Your task to perform on an android device: Search for Mexican restaurants on Maps Image 0: 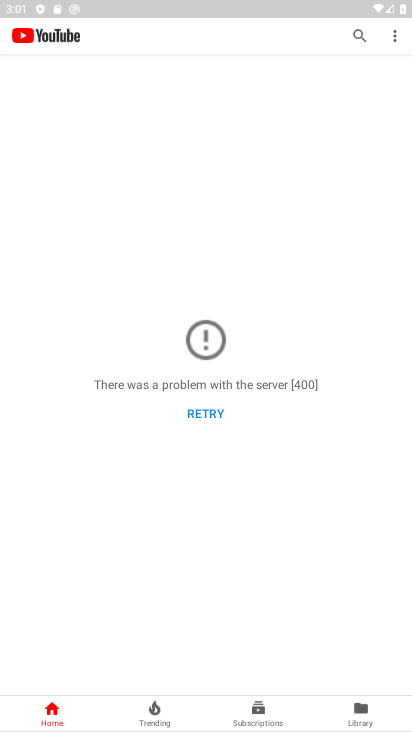
Step 0: press home button
Your task to perform on an android device: Search for Mexican restaurants on Maps Image 1: 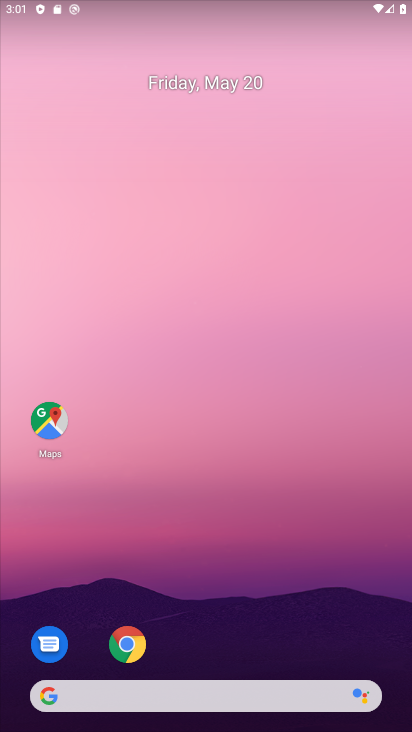
Step 1: click (44, 419)
Your task to perform on an android device: Search for Mexican restaurants on Maps Image 2: 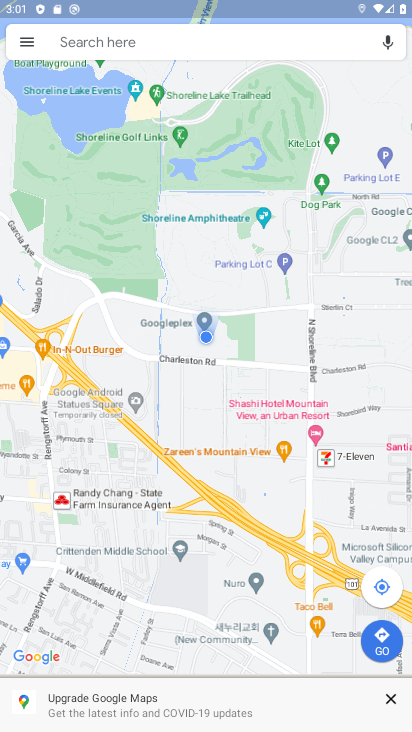
Step 2: click (101, 53)
Your task to perform on an android device: Search for Mexican restaurants on Maps Image 3: 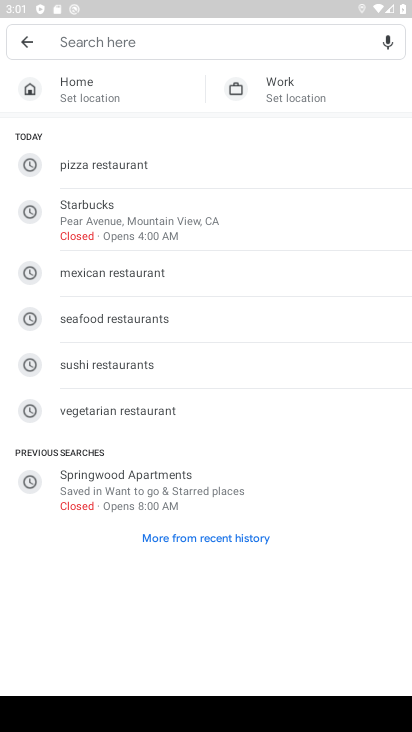
Step 3: click (179, 277)
Your task to perform on an android device: Search for Mexican restaurants on Maps Image 4: 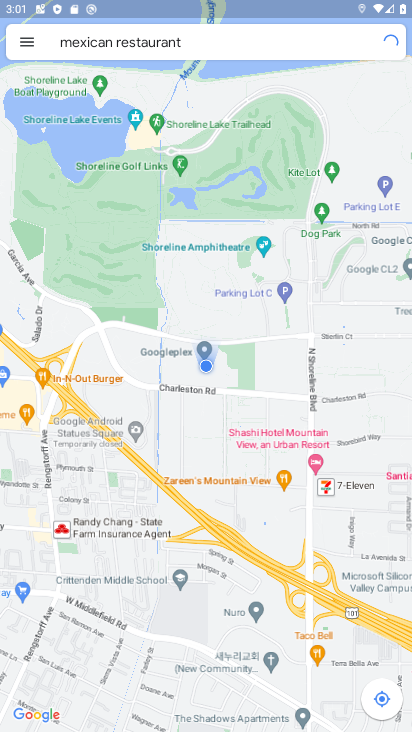
Step 4: task complete